Your task to perform on an android device: Go to Wikipedia Image 0: 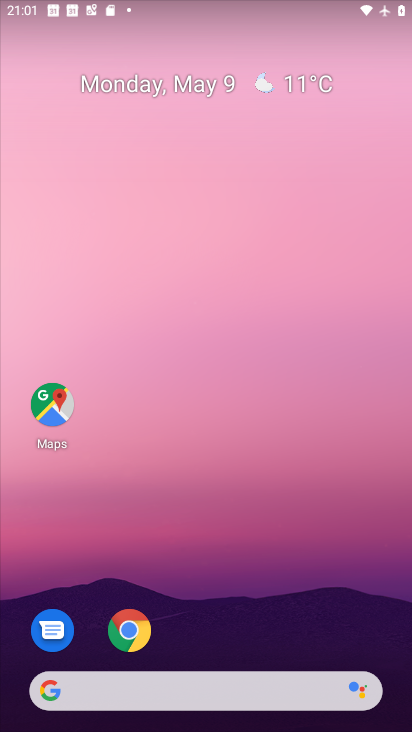
Step 0: click (140, 641)
Your task to perform on an android device: Go to Wikipedia Image 1: 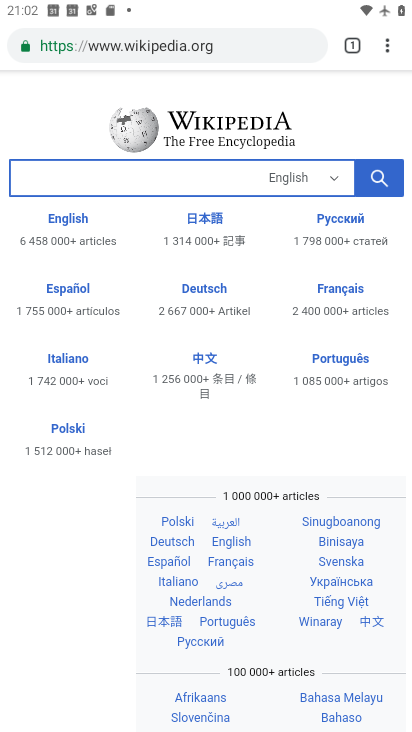
Step 1: task complete